Your task to perform on an android device: change the clock style Image 0: 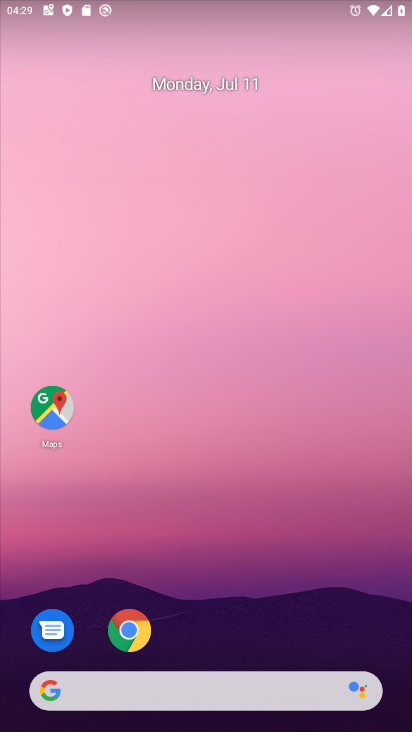
Step 0: press home button
Your task to perform on an android device: change the clock style Image 1: 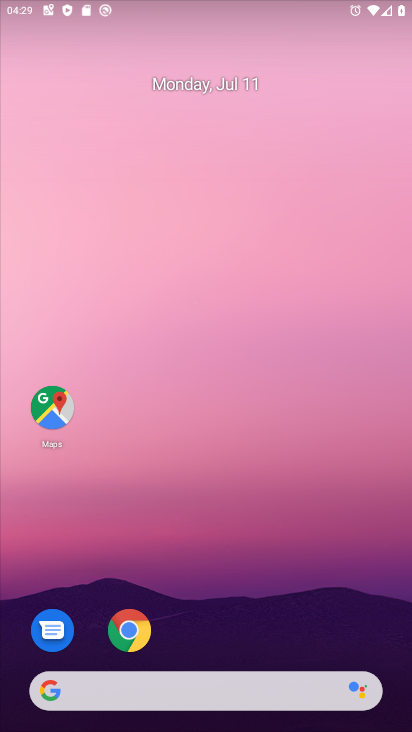
Step 1: drag from (214, 652) to (245, 40)
Your task to perform on an android device: change the clock style Image 2: 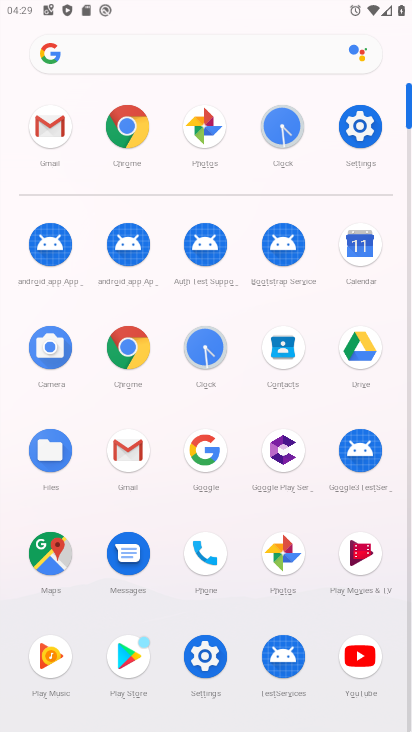
Step 2: click (206, 344)
Your task to perform on an android device: change the clock style Image 3: 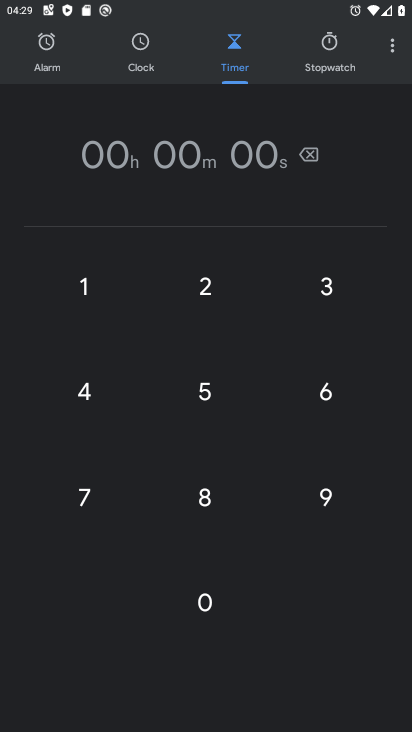
Step 3: click (391, 47)
Your task to perform on an android device: change the clock style Image 4: 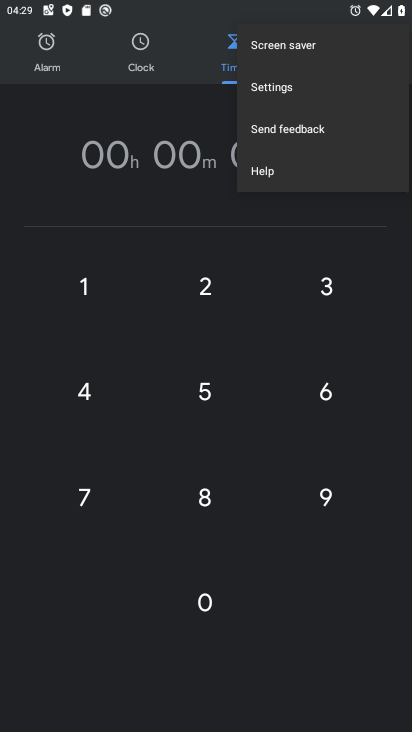
Step 4: click (305, 86)
Your task to perform on an android device: change the clock style Image 5: 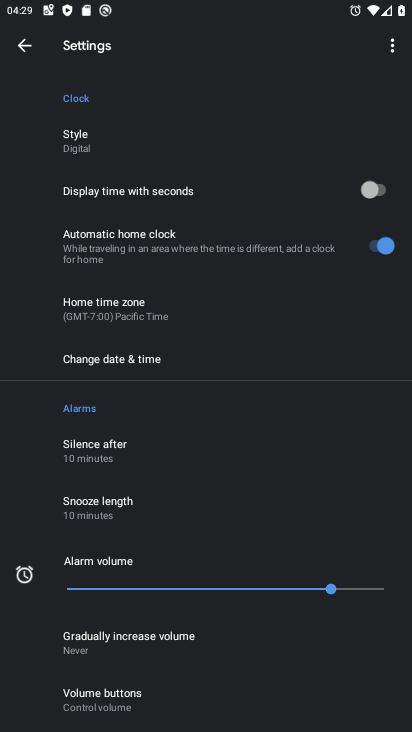
Step 5: click (102, 138)
Your task to perform on an android device: change the clock style Image 6: 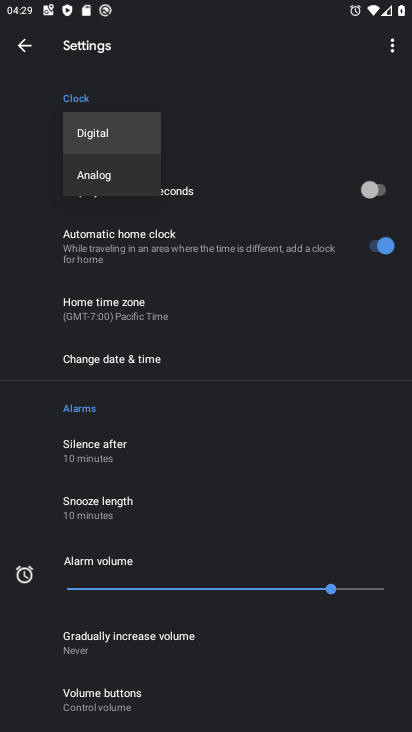
Step 6: click (117, 176)
Your task to perform on an android device: change the clock style Image 7: 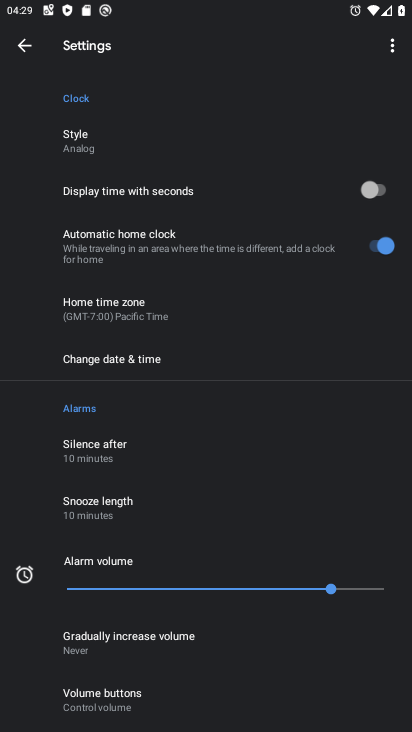
Step 7: task complete